Your task to perform on an android device: Open the Play Movies app and select the watchlist tab. Image 0: 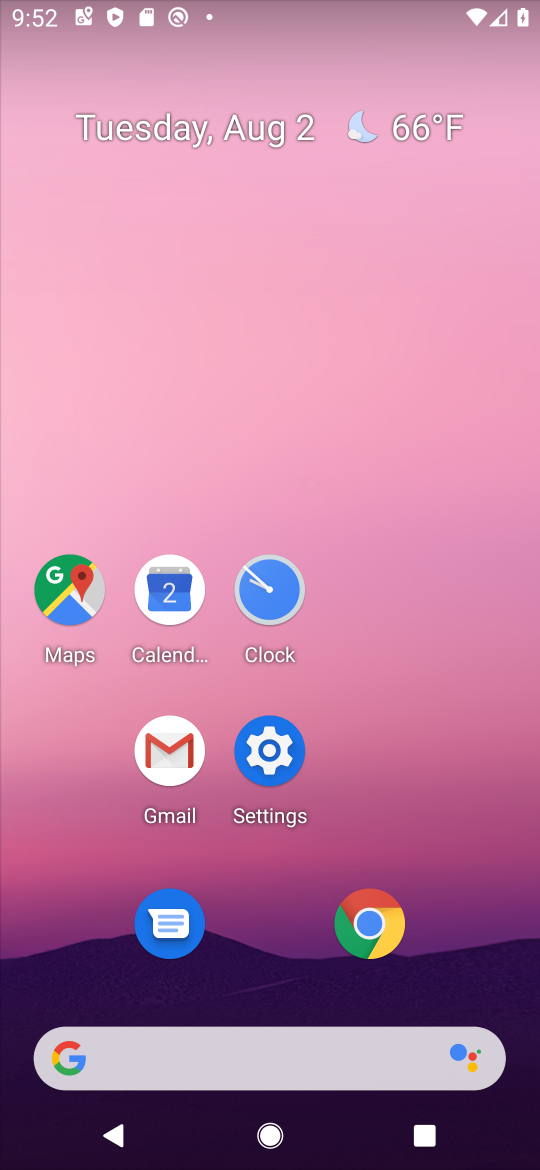
Step 0: drag from (532, 994) to (466, 106)
Your task to perform on an android device: Open the Play Movies app and select the watchlist tab. Image 1: 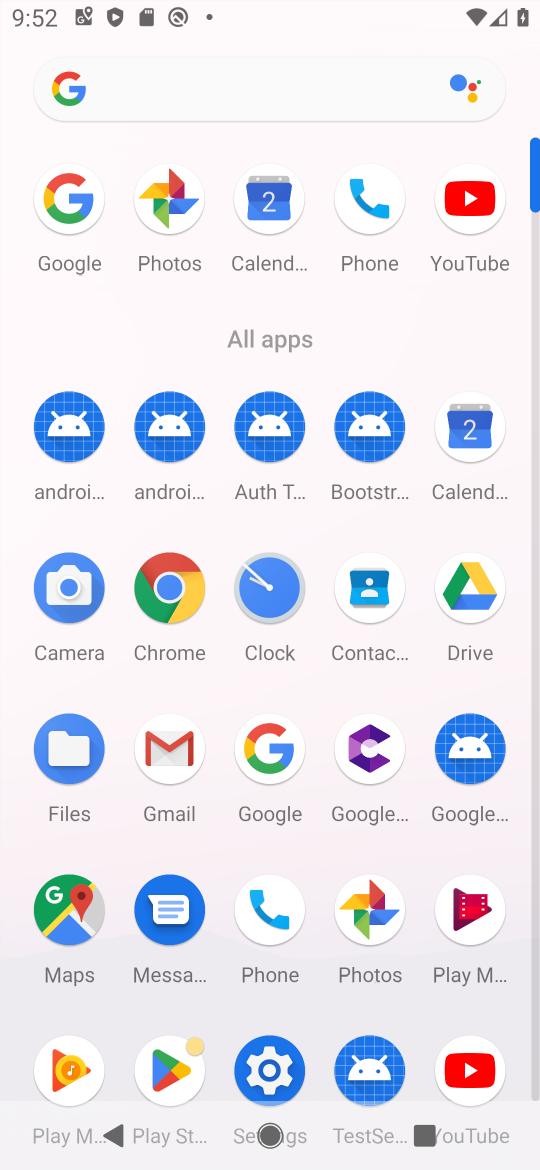
Step 1: click (470, 899)
Your task to perform on an android device: Open the Play Movies app and select the watchlist tab. Image 2: 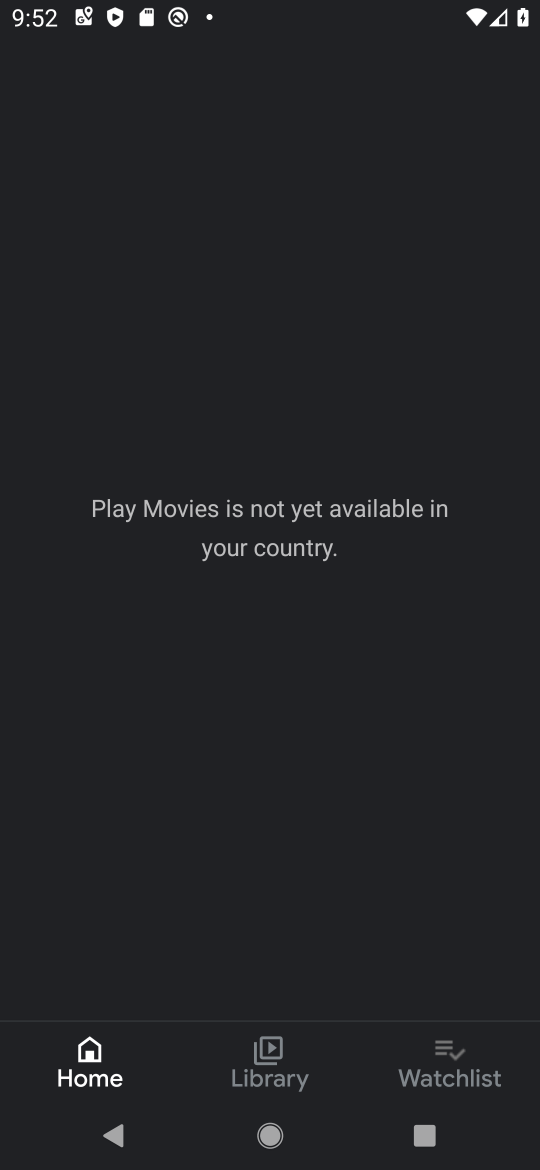
Step 2: click (436, 1029)
Your task to perform on an android device: Open the Play Movies app and select the watchlist tab. Image 3: 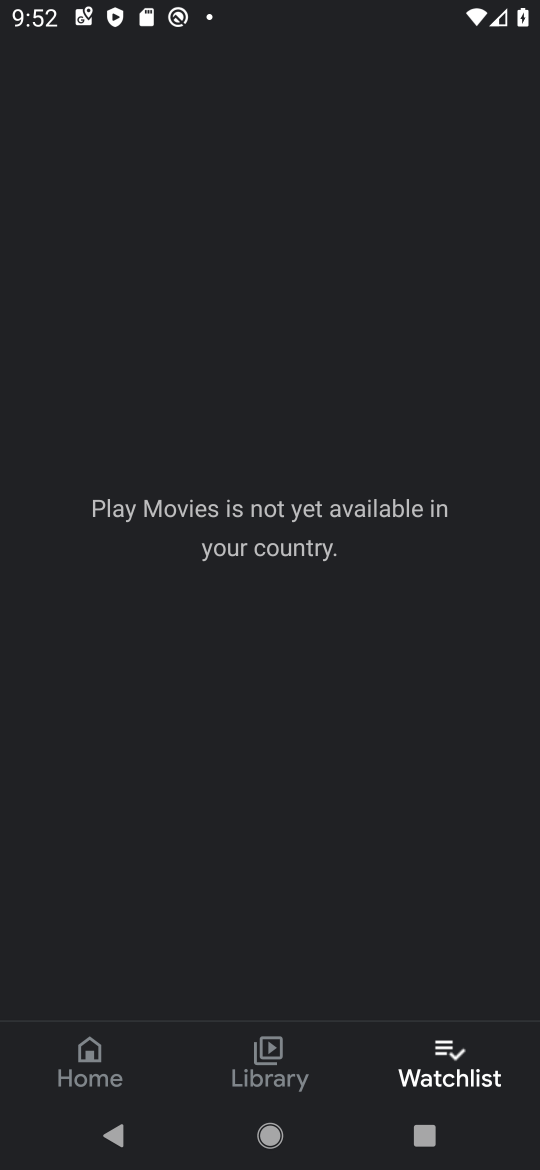
Step 3: task complete